Your task to perform on an android device: open app "NewsBreak: Local News & Alerts" Image 0: 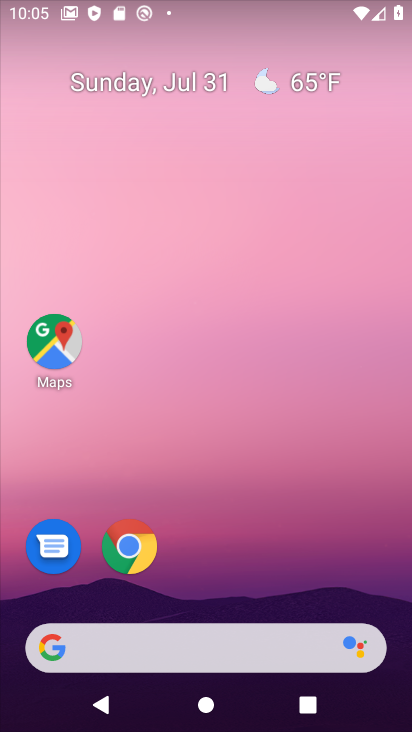
Step 0: drag from (286, 575) to (283, 34)
Your task to perform on an android device: open app "NewsBreak: Local News & Alerts" Image 1: 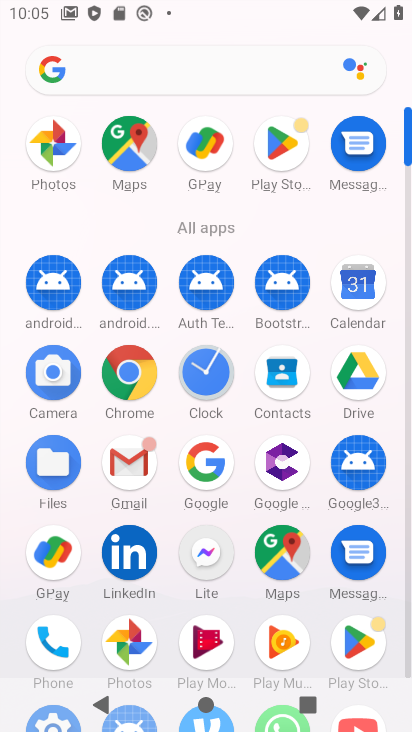
Step 1: click (280, 143)
Your task to perform on an android device: open app "NewsBreak: Local News & Alerts" Image 2: 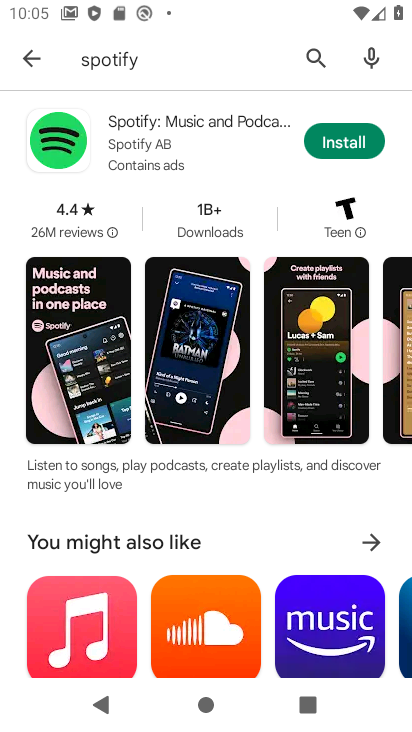
Step 2: click (321, 57)
Your task to perform on an android device: open app "NewsBreak: Local News & Alerts" Image 3: 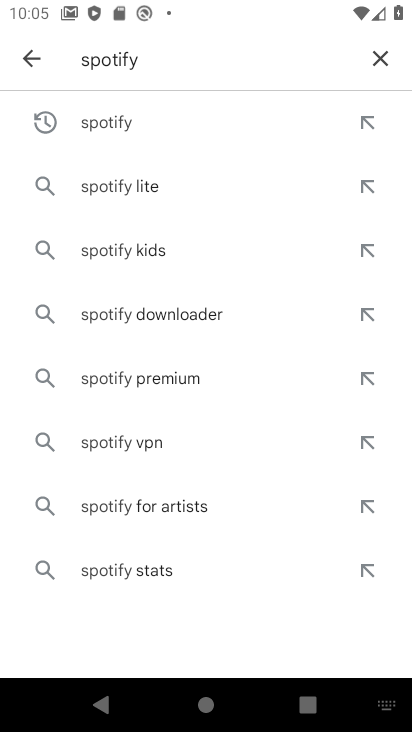
Step 3: click (387, 54)
Your task to perform on an android device: open app "NewsBreak: Local News & Alerts" Image 4: 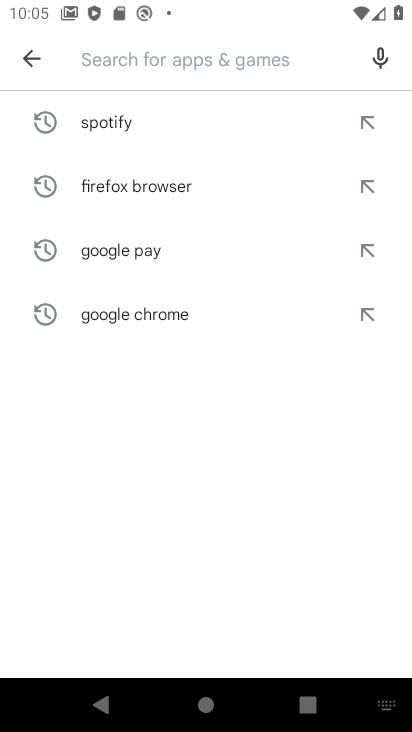
Step 4: click (199, 61)
Your task to perform on an android device: open app "NewsBreak: Local News & Alerts" Image 5: 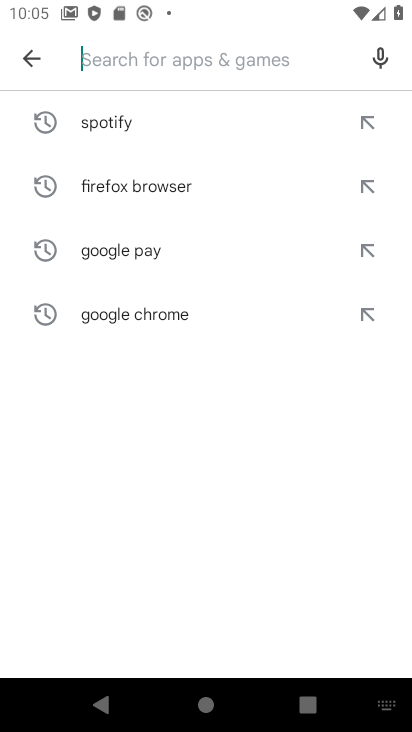
Step 5: type "news break"
Your task to perform on an android device: open app "NewsBreak: Local News & Alerts" Image 6: 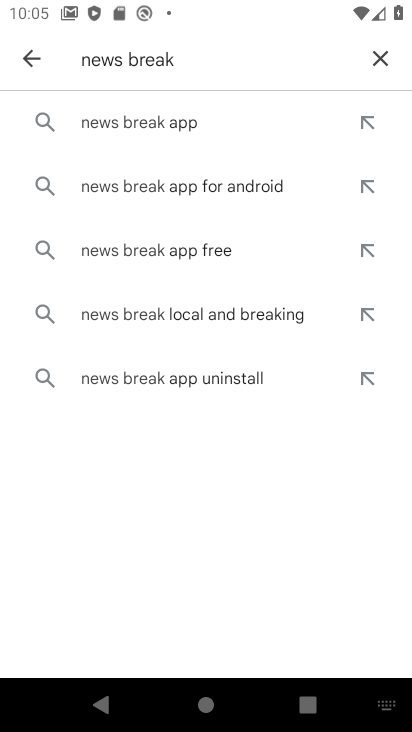
Step 6: click (227, 110)
Your task to perform on an android device: open app "NewsBreak: Local News & Alerts" Image 7: 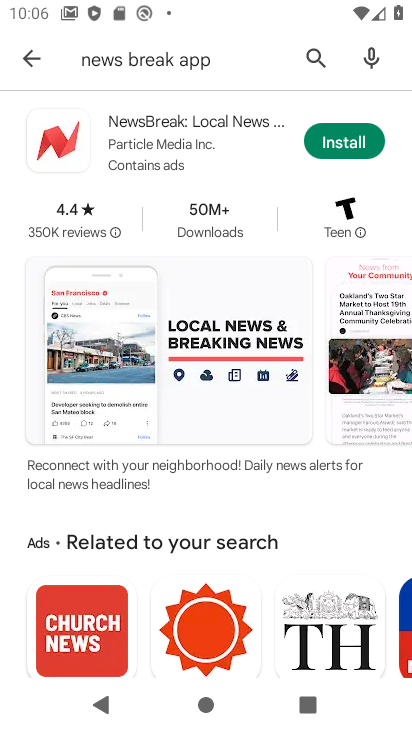
Step 7: task complete